Your task to perform on an android device: turn off data saver in the chrome app Image 0: 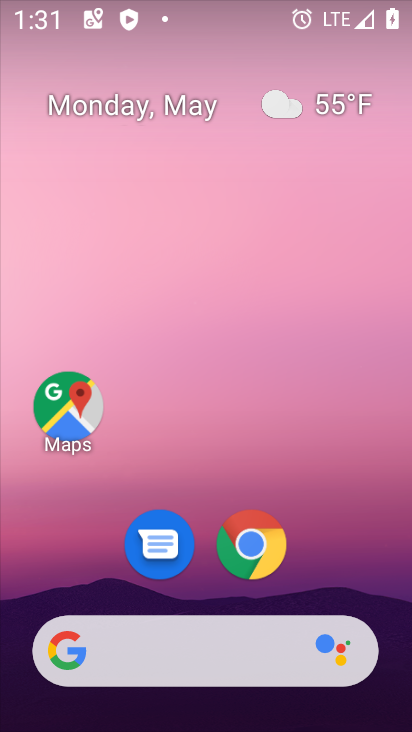
Step 0: click (252, 547)
Your task to perform on an android device: turn off data saver in the chrome app Image 1: 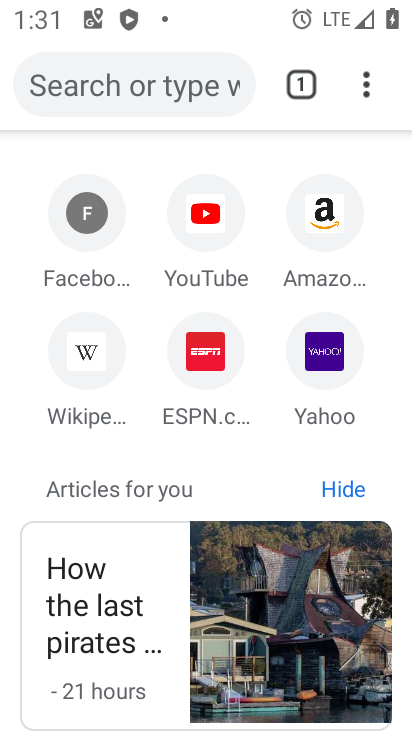
Step 1: click (368, 95)
Your task to perform on an android device: turn off data saver in the chrome app Image 2: 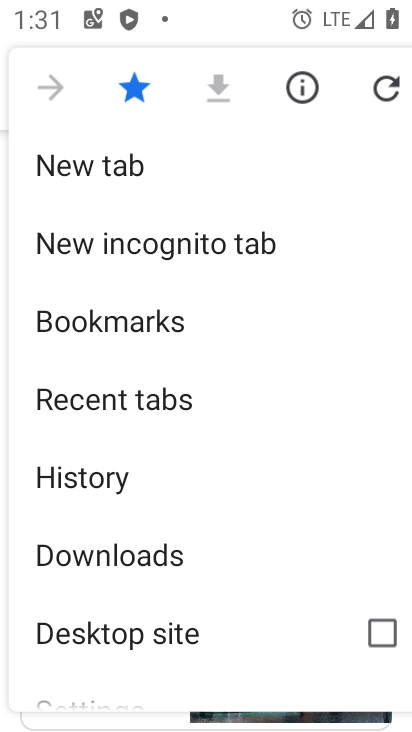
Step 2: drag from (233, 606) to (299, 222)
Your task to perform on an android device: turn off data saver in the chrome app Image 3: 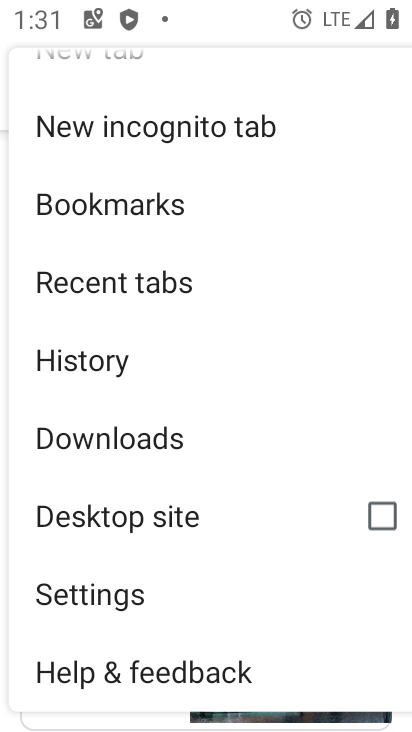
Step 3: click (91, 595)
Your task to perform on an android device: turn off data saver in the chrome app Image 4: 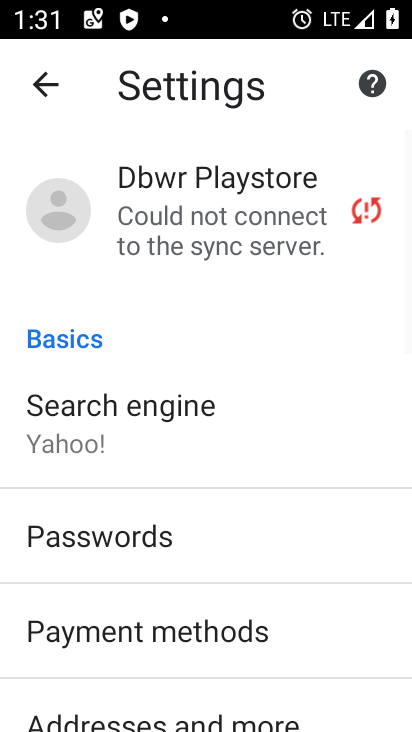
Step 4: drag from (273, 653) to (262, 250)
Your task to perform on an android device: turn off data saver in the chrome app Image 5: 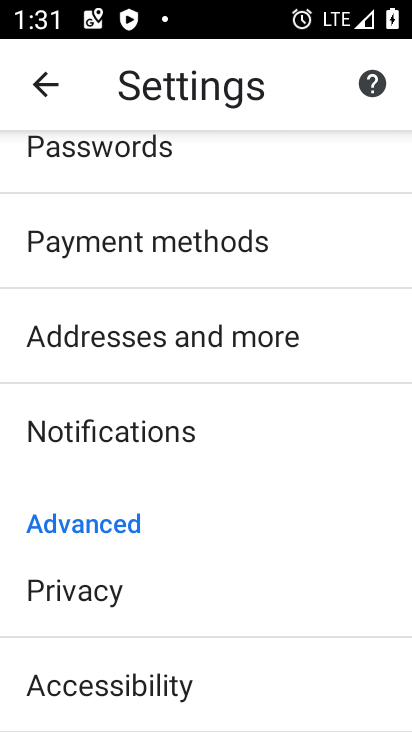
Step 5: drag from (254, 661) to (298, 152)
Your task to perform on an android device: turn off data saver in the chrome app Image 6: 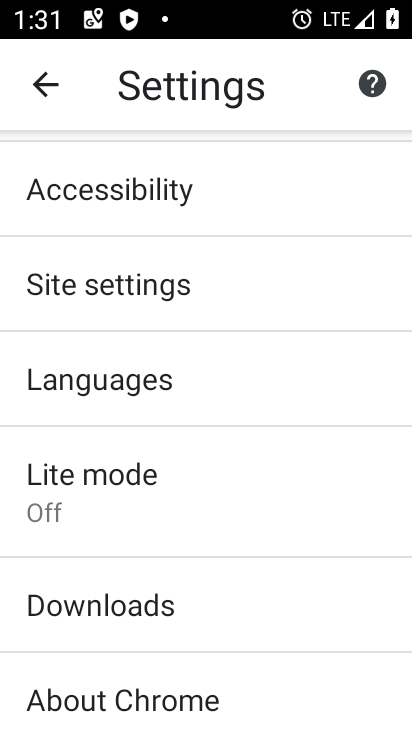
Step 6: click (67, 488)
Your task to perform on an android device: turn off data saver in the chrome app Image 7: 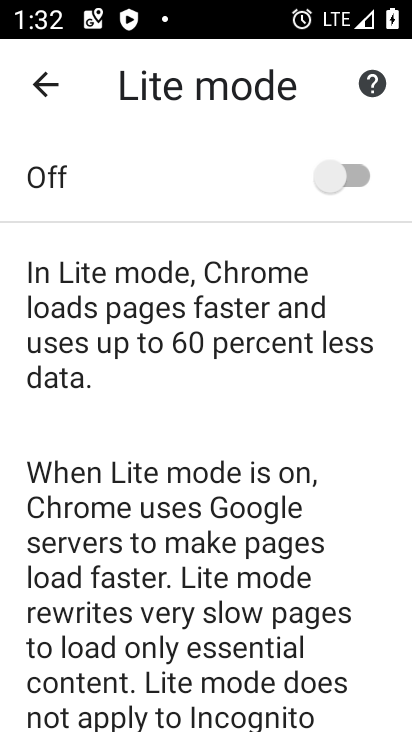
Step 7: task complete